Your task to perform on an android device: turn off translation in the chrome app Image 0: 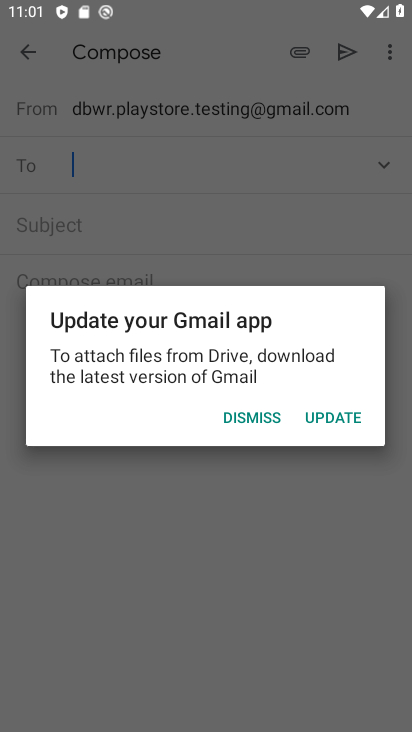
Step 0: click (250, 415)
Your task to perform on an android device: turn off translation in the chrome app Image 1: 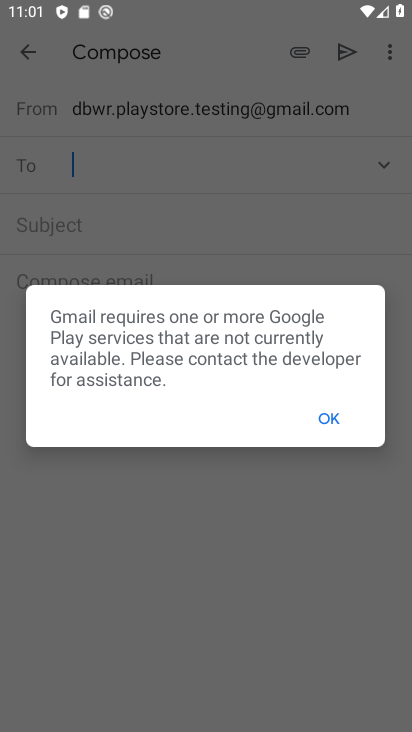
Step 1: click (325, 414)
Your task to perform on an android device: turn off translation in the chrome app Image 2: 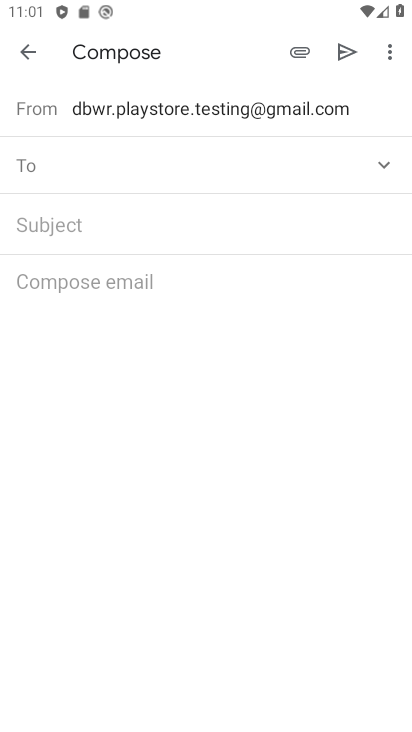
Step 2: press back button
Your task to perform on an android device: turn off translation in the chrome app Image 3: 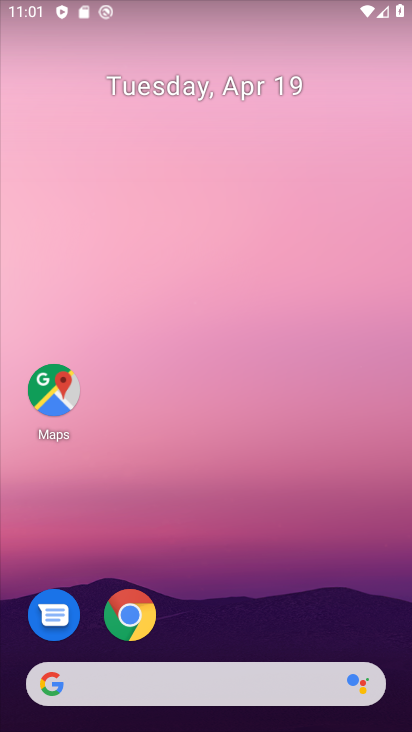
Step 3: click (129, 609)
Your task to perform on an android device: turn off translation in the chrome app Image 4: 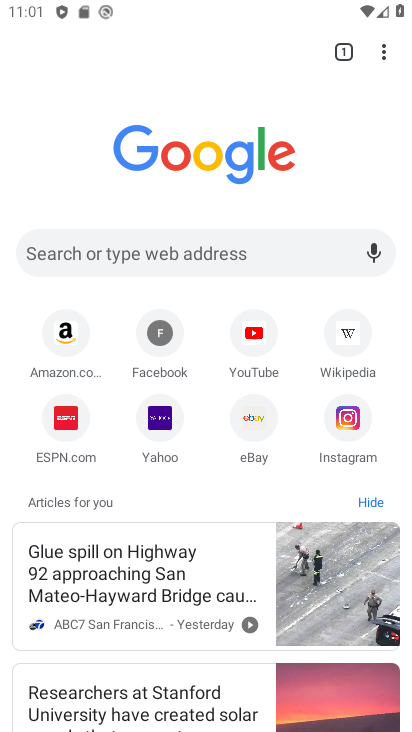
Step 4: click (380, 56)
Your task to perform on an android device: turn off translation in the chrome app Image 5: 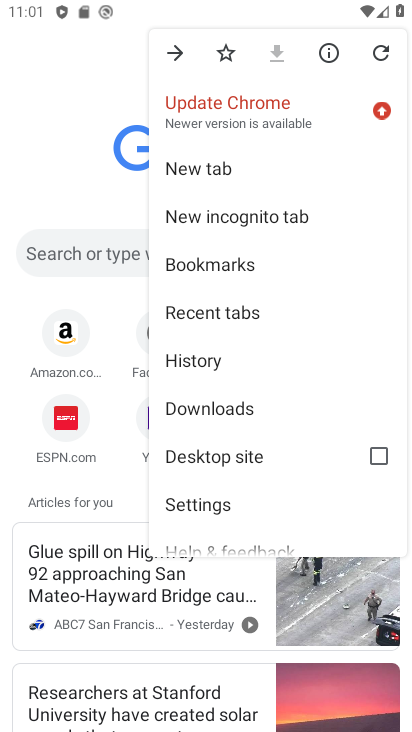
Step 5: click (208, 497)
Your task to perform on an android device: turn off translation in the chrome app Image 6: 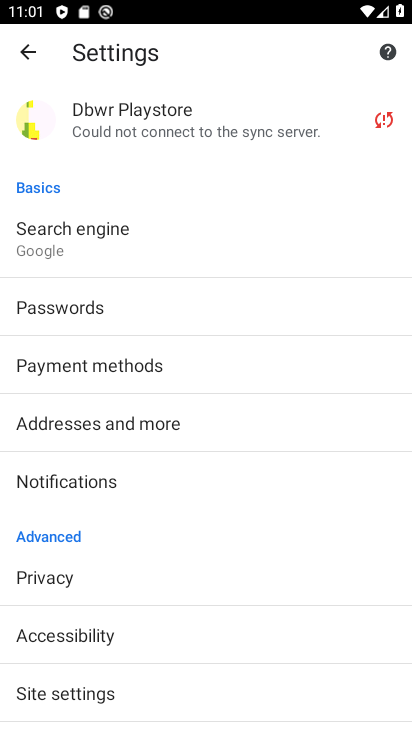
Step 6: drag from (185, 638) to (189, 314)
Your task to perform on an android device: turn off translation in the chrome app Image 7: 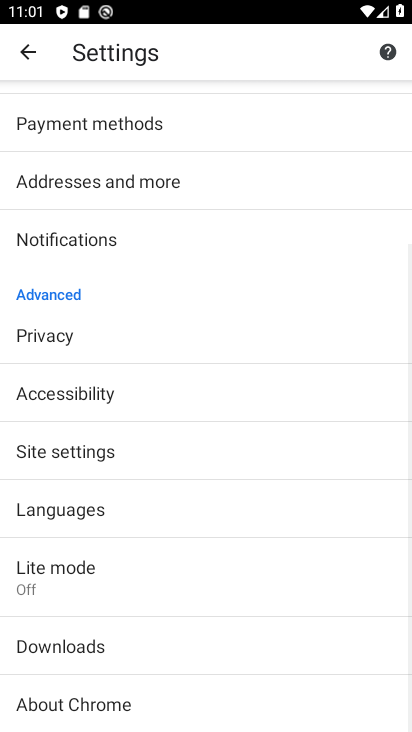
Step 7: click (55, 502)
Your task to perform on an android device: turn off translation in the chrome app Image 8: 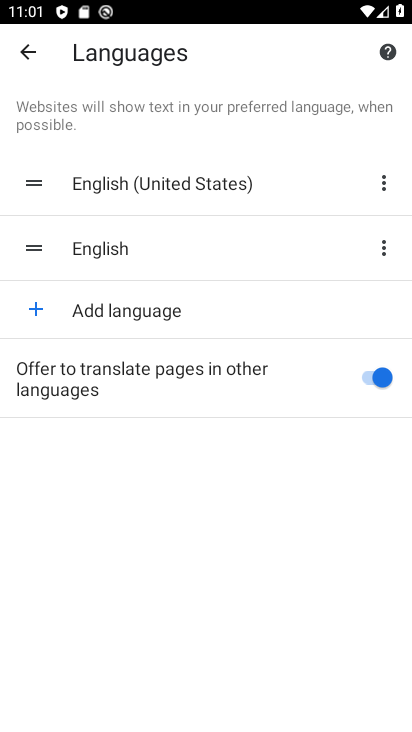
Step 8: click (363, 375)
Your task to perform on an android device: turn off translation in the chrome app Image 9: 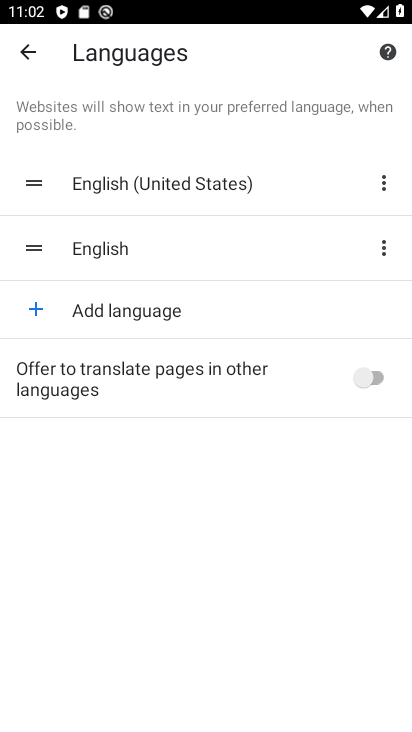
Step 9: task complete